Your task to perform on an android device: check the backup settings in the google photos Image 0: 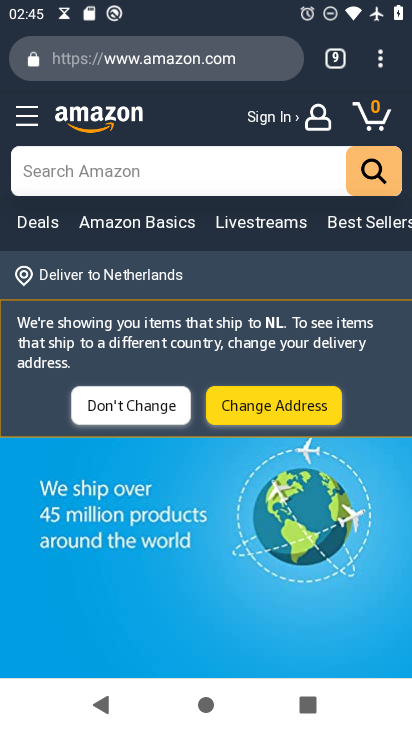
Step 0: press home button
Your task to perform on an android device: check the backup settings in the google photos Image 1: 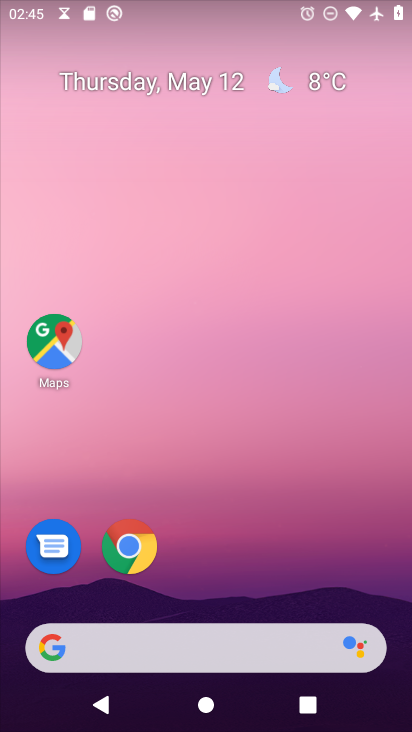
Step 1: drag from (142, 650) to (294, 154)
Your task to perform on an android device: check the backup settings in the google photos Image 2: 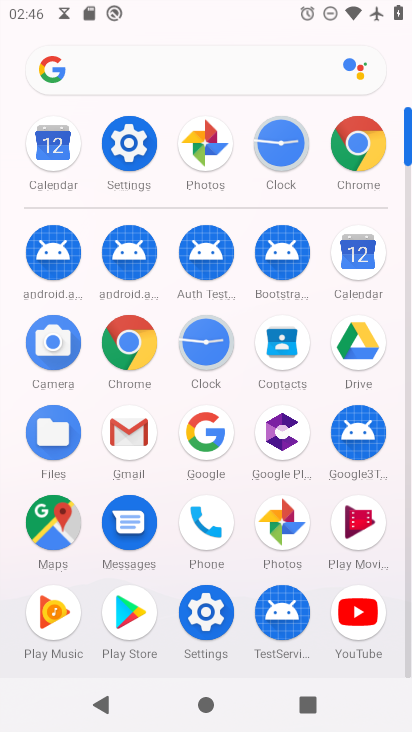
Step 2: click (297, 522)
Your task to perform on an android device: check the backup settings in the google photos Image 3: 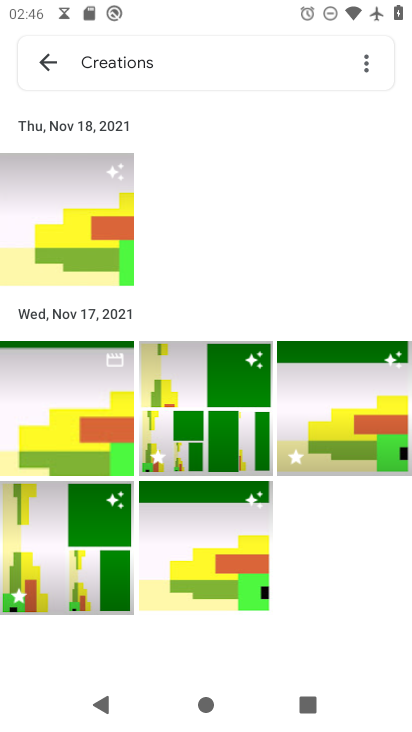
Step 3: click (48, 62)
Your task to perform on an android device: check the backup settings in the google photos Image 4: 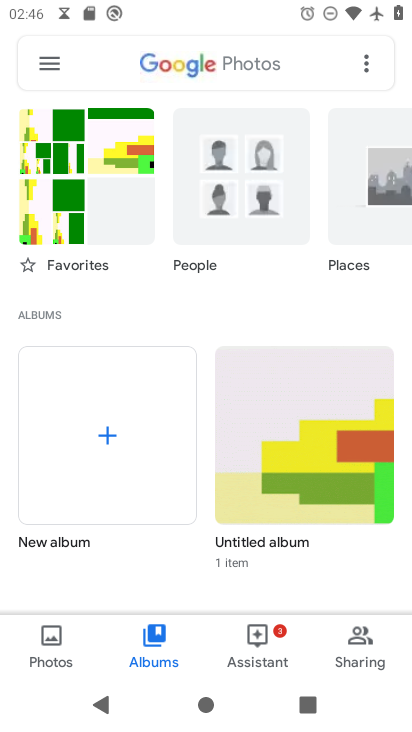
Step 4: click (53, 64)
Your task to perform on an android device: check the backup settings in the google photos Image 5: 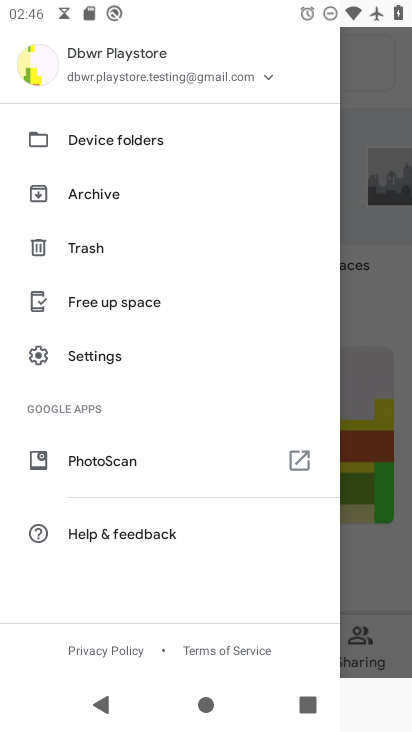
Step 5: click (109, 352)
Your task to perform on an android device: check the backup settings in the google photos Image 6: 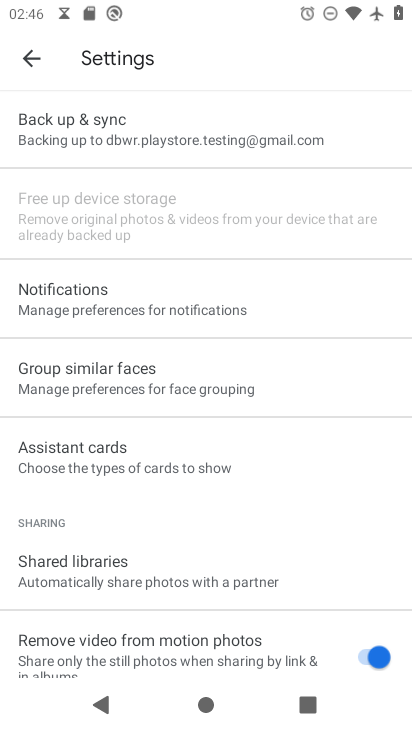
Step 6: click (163, 137)
Your task to perform on an android device: check the backup settings in the google photos Image 7: 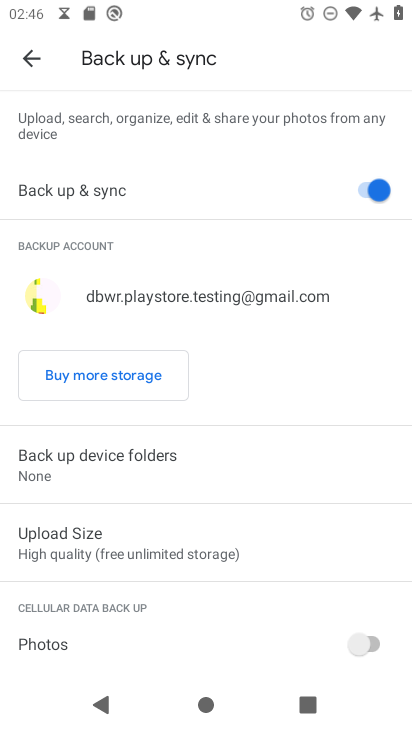
Step 7: task complete